Your task to perform on an android device: Go to Wikipedia Image 0: 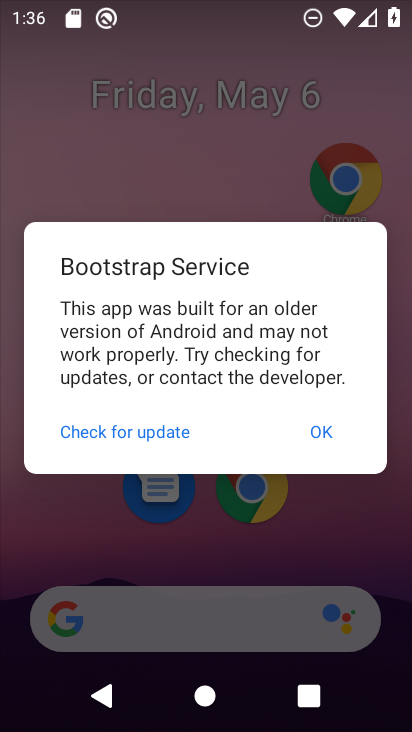
Step 0: click (308, 419)
Your task to perform on an android device: Go to Wikipedia Image 1: 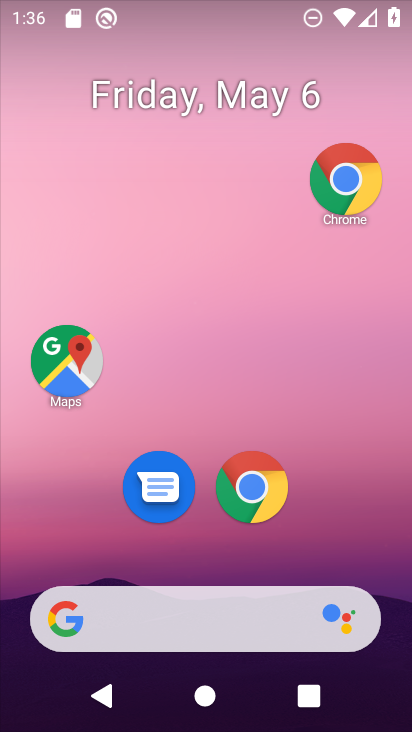
Step 1: click (272, 474)
Your task to perform on an android device: Go to Wikipedia Image 2: 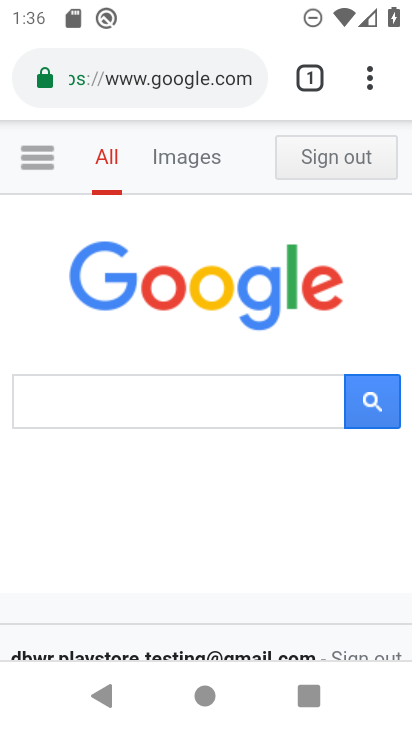
Step 2: click (198, 76)
Your task to perform on an android device: Go to Wikipedia Image 3: 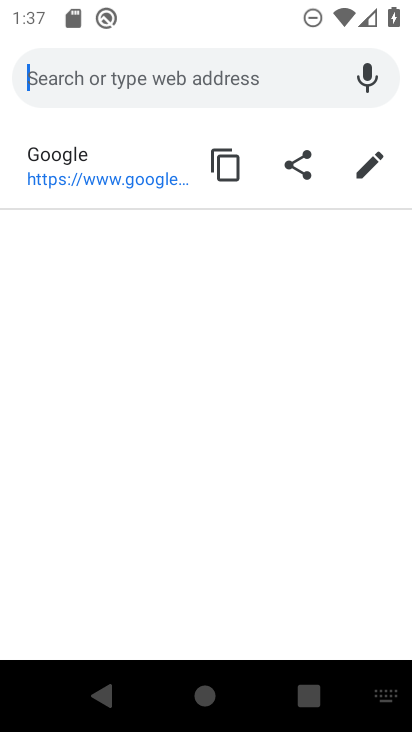
Step 3: type "wikipdea"
Your task to perform on an android device: Go to Wikipedia Image 4: 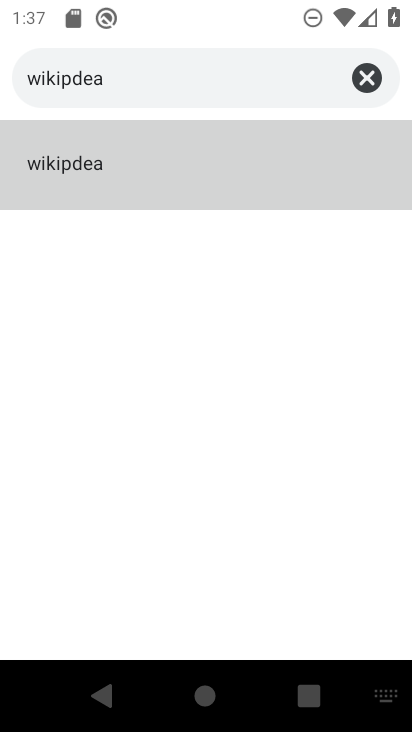
Step 4: click (159, 180)
Your task to perform on an android device: Go to Wikipedia Image 5: 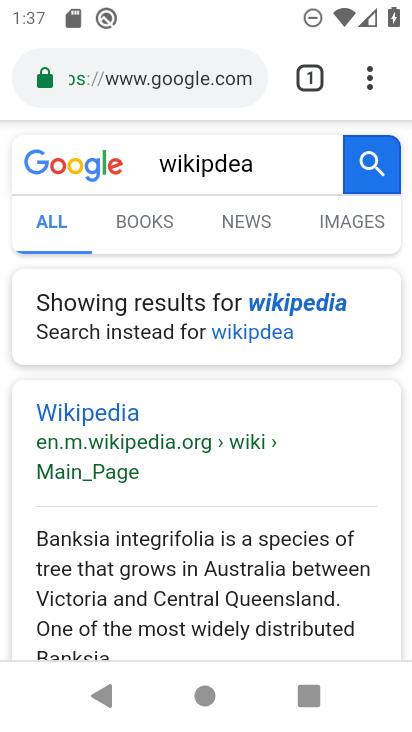
Step 5: click (82, 410)
Your task to perform on an android device: Go to Wikipedia Image 6: 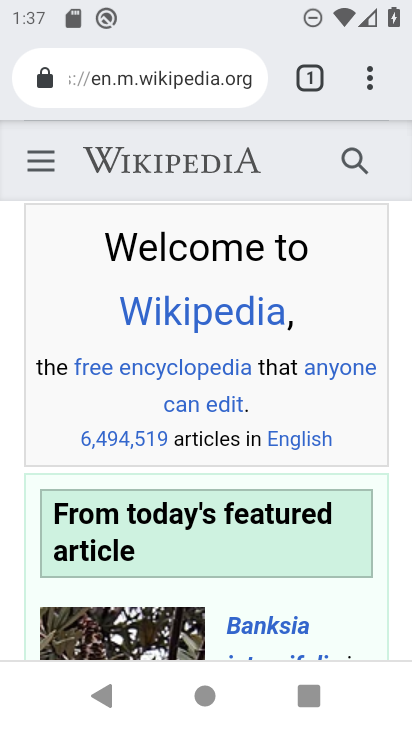
Step 6: task complete